Your task to perform on an android device: Open maps Image 0: 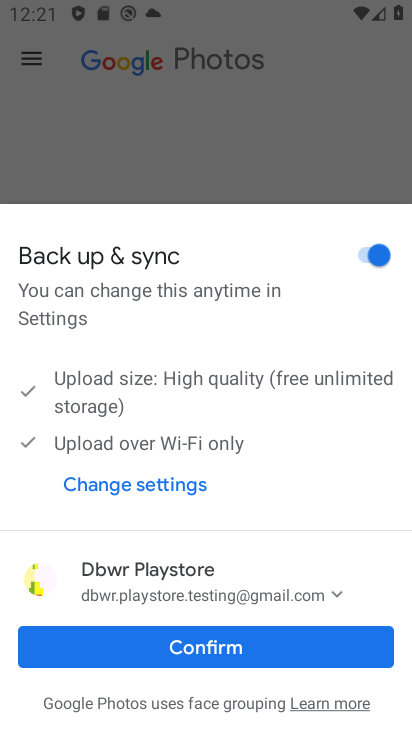
Step 0: press home button
Your task to perform on an android device: Open maps Image 1: 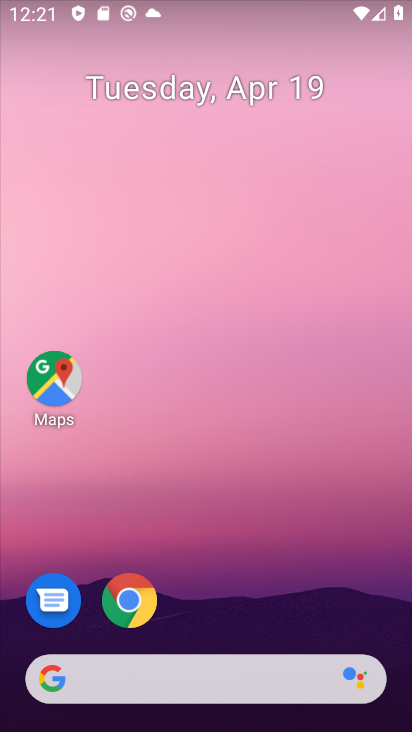
Step 1: click (61, 388)
Your task to perform on an android device: Open maps Image 2: 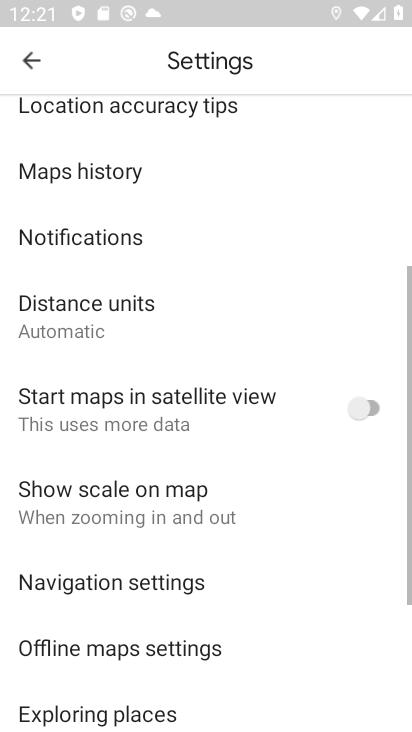
Step 2: click (31, 71)
Your task to perform on an android device: Open maps Image 3: 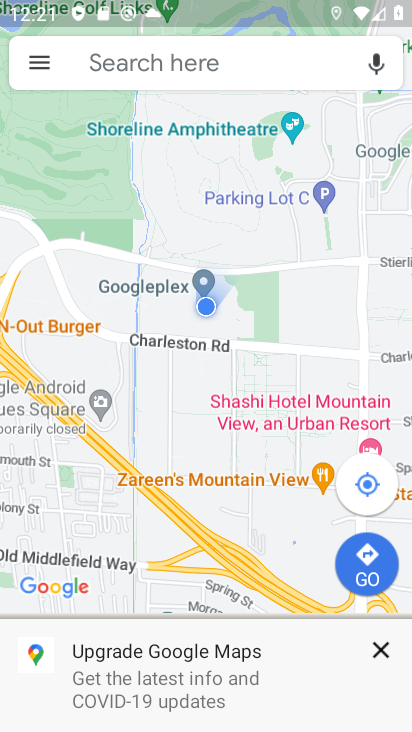
Step 3: task complete